Your task to perform on an android device: Open the calendar app, open the side menu, and click the "Day" option Image 0: 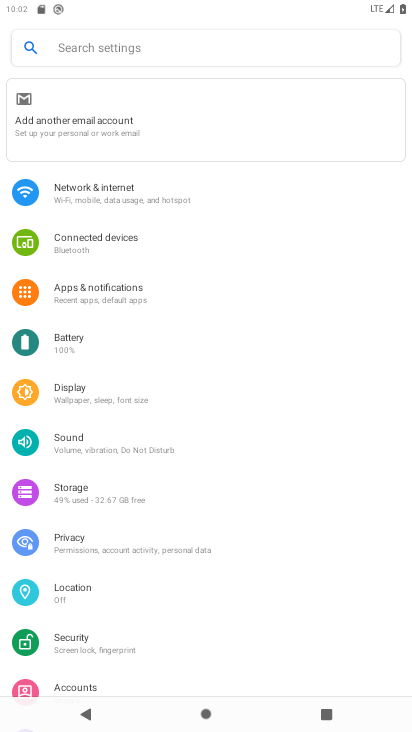
Step 0: press home button
Your task to perform on an android device: Open the calendar app, open the side menu, and click the "Day" option Image 1: 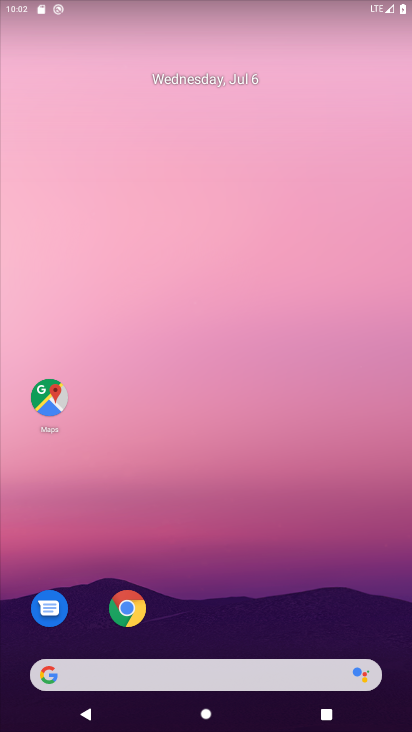
Step 1: drag from (224, 468) to (283, 23)
Your task to perform on an android device: Open the calendar app, open the side menu, and click the "Day" option Image 2: 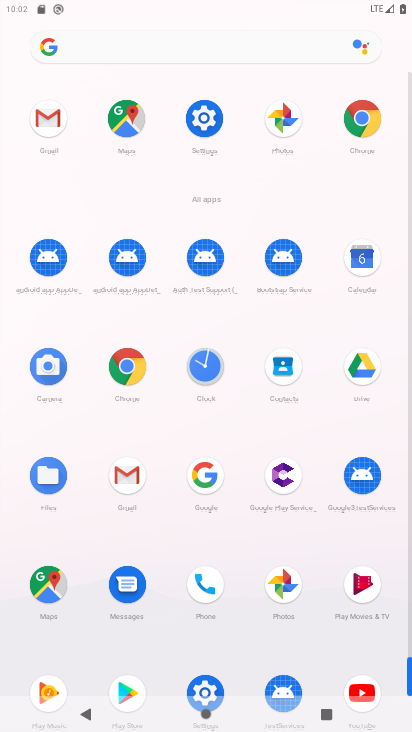
Step 2: click (358, 271)
Your task to perform on an android device: Open the calendar app, open the side menu, and click the "Day" option Image 3: 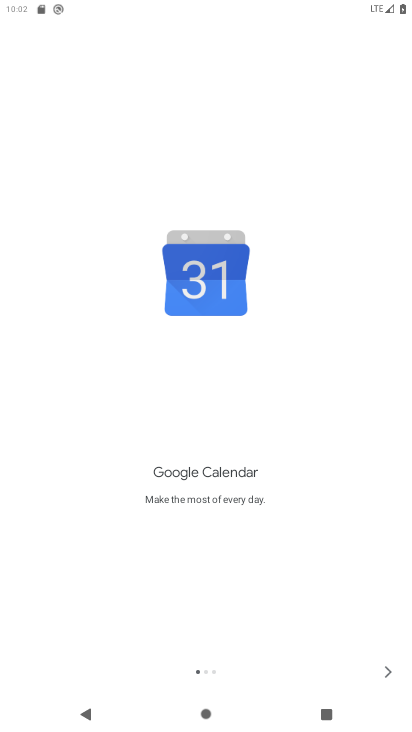
Step 3: click (382, 675)
Your task to perform on an android device: Open the calendar app, open the side menu, and click the "Day" option Image 4: 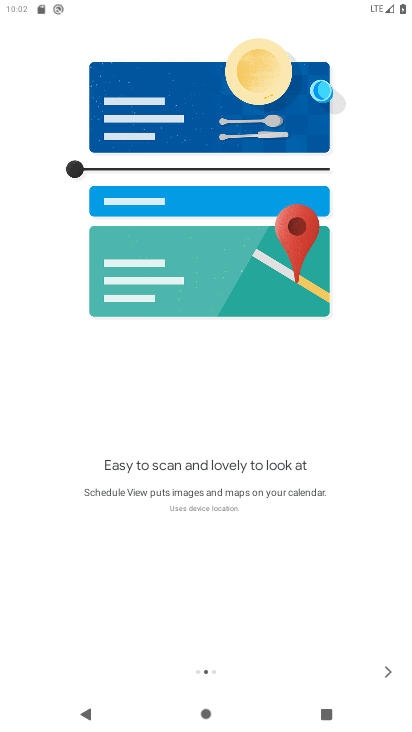
Step 4: click (385, 659)
Your task to perform on an android device: Open the calendar app, open the side menu, and click the "Day" option Image 5: 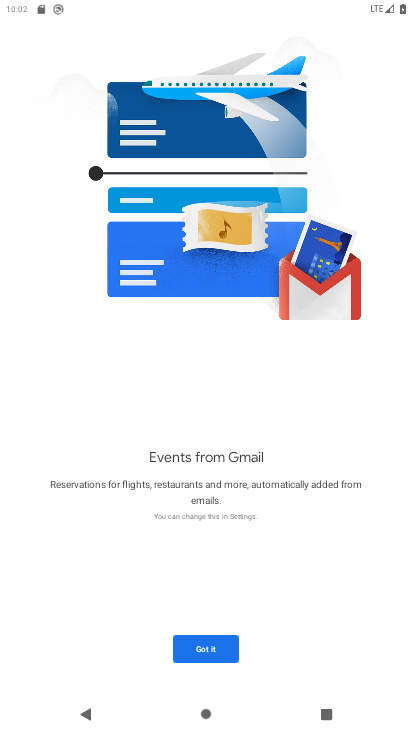
Step 5: click (202, 647)
Your task to perform on an android device: Open the calendar app, open the side menu, and click the "Day" option Image 6: 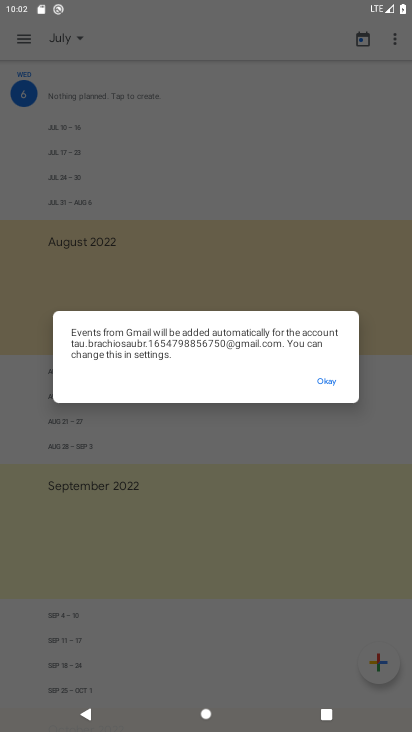
Step 6: click (325, 373)
Your task to perform on an android device: Open the calendar app, open the side menu, and click the "Day" option Image 7: 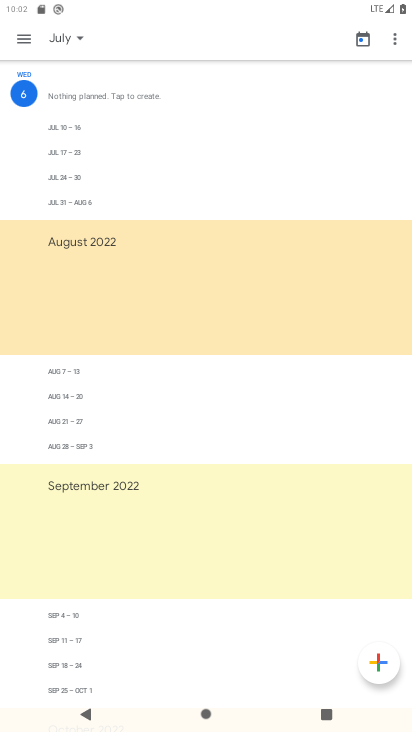
Step 7: click (20, 31)
Your task to perform on an android device: Open the calendar app, open the side menu, and click the "Day" option Image 8: 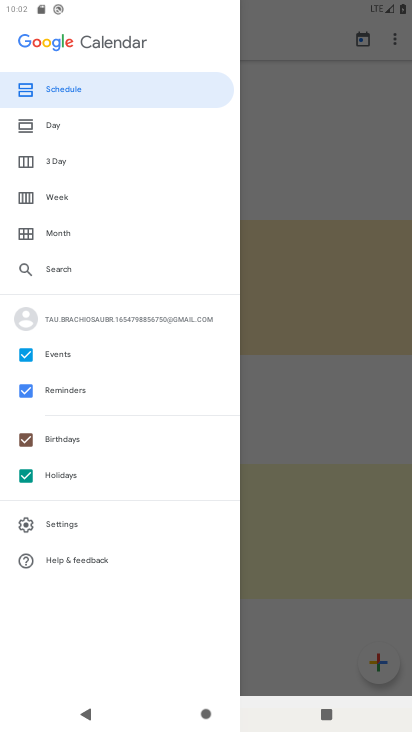
Step 8: click (51, 124)
Your task to perform on an android device: Open the calendar app, open the side menu, and click the "Day" option Image 9: 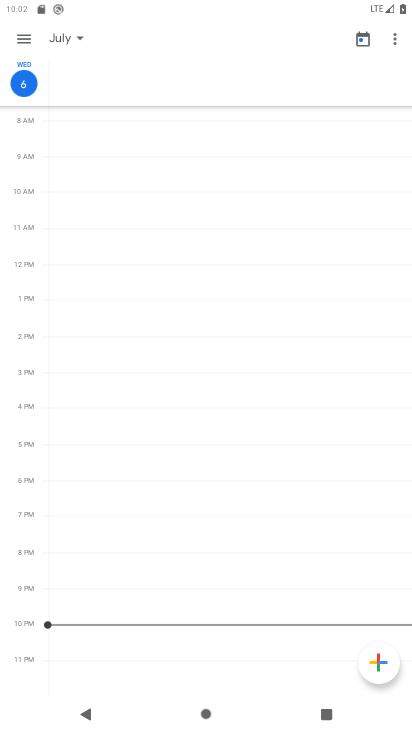
Step 9: task complete